Your task to perform on an android device: install app "Messages" Image 0: 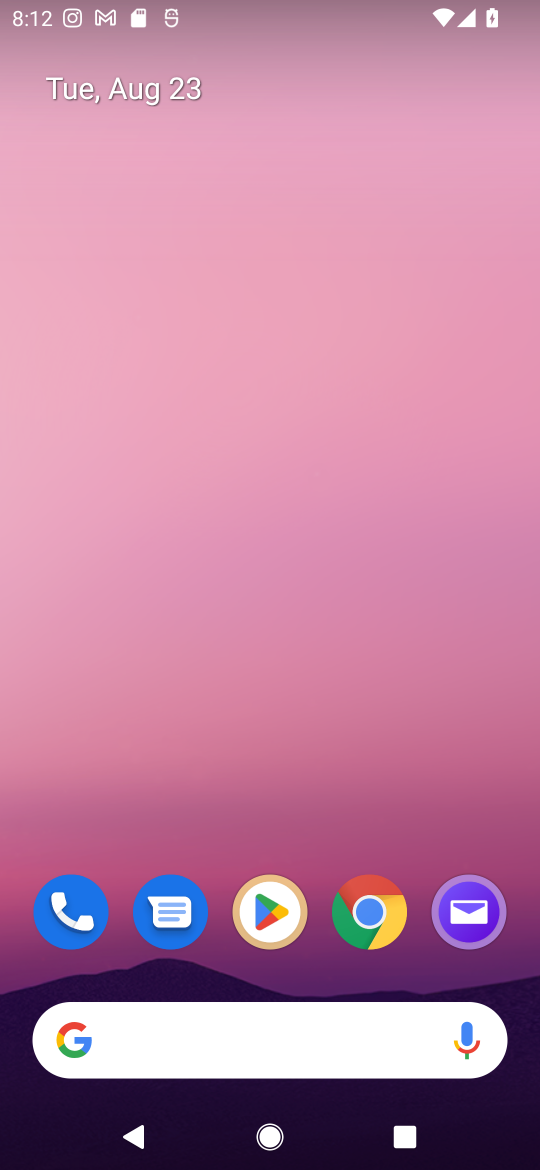
Step 0: click (265, 919)
Your task to perform on an android device: install app "Messages" Image 1: 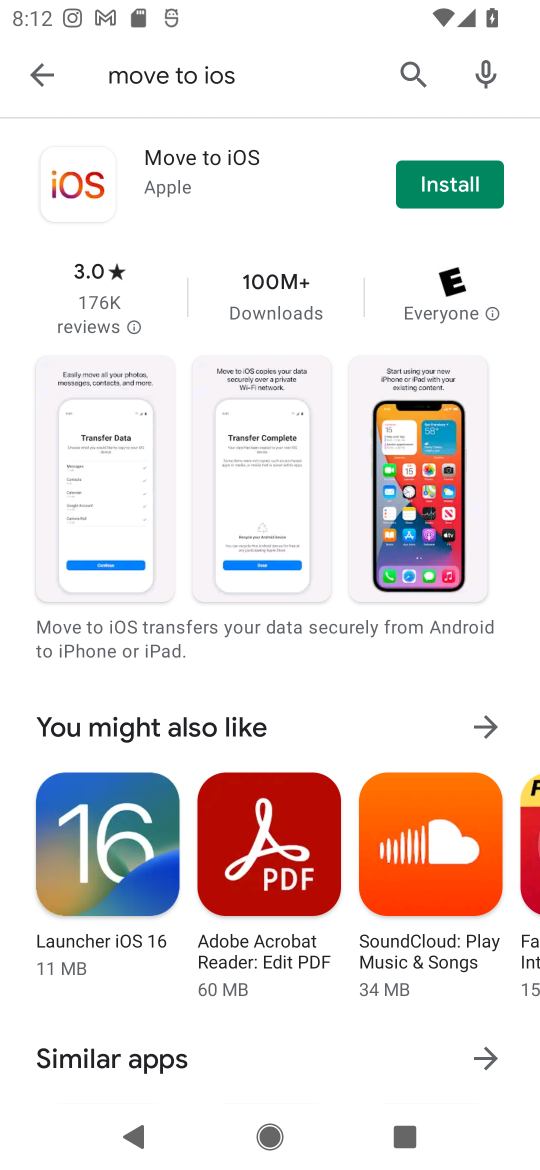
Step 1: click (412, 72)
Your task to perform on an android device: install app "Messages" Image 2: 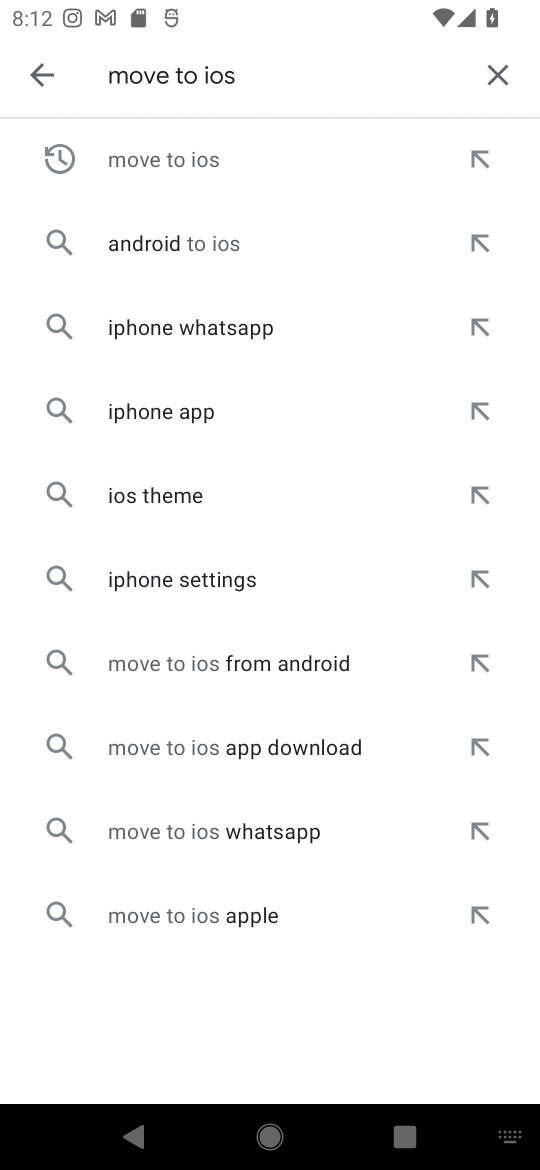
Step 2: click (493, 74)
Your task to perform on an android device: install app "Messages" Image 3: 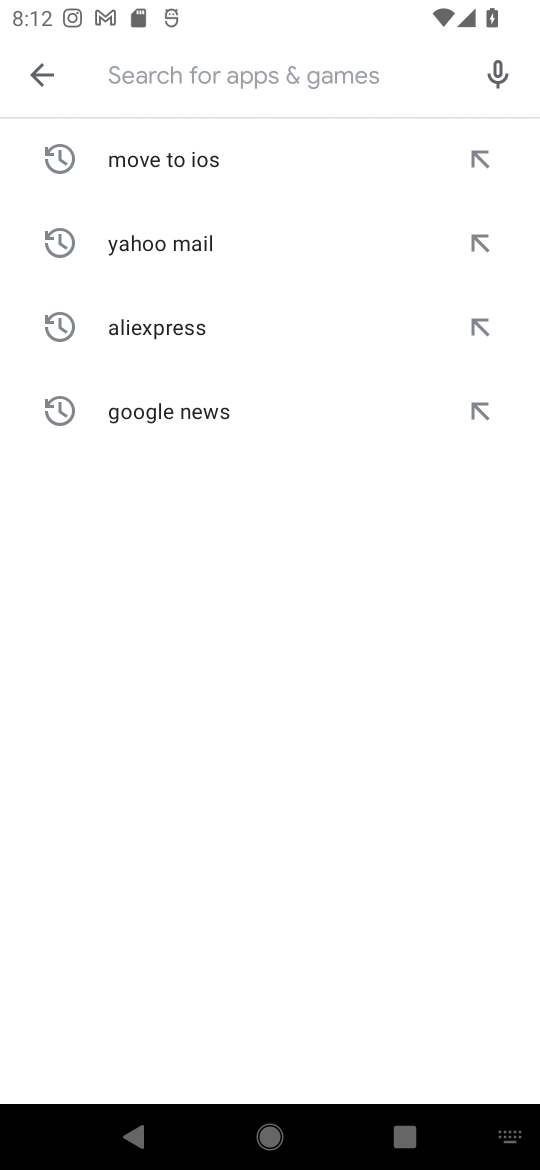
Step 3: type "Messages"
Your task to perform on an android device: install app "Messages" Image 4: 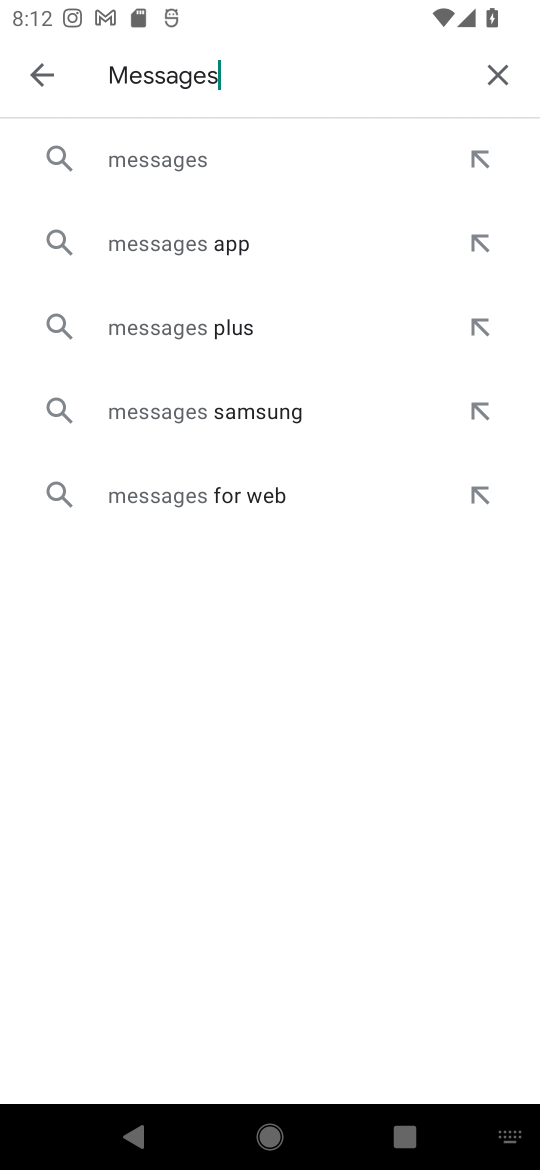
Step 4: click (145, 166)
Your task to perform on an android device: install app "Messages" Image 5: 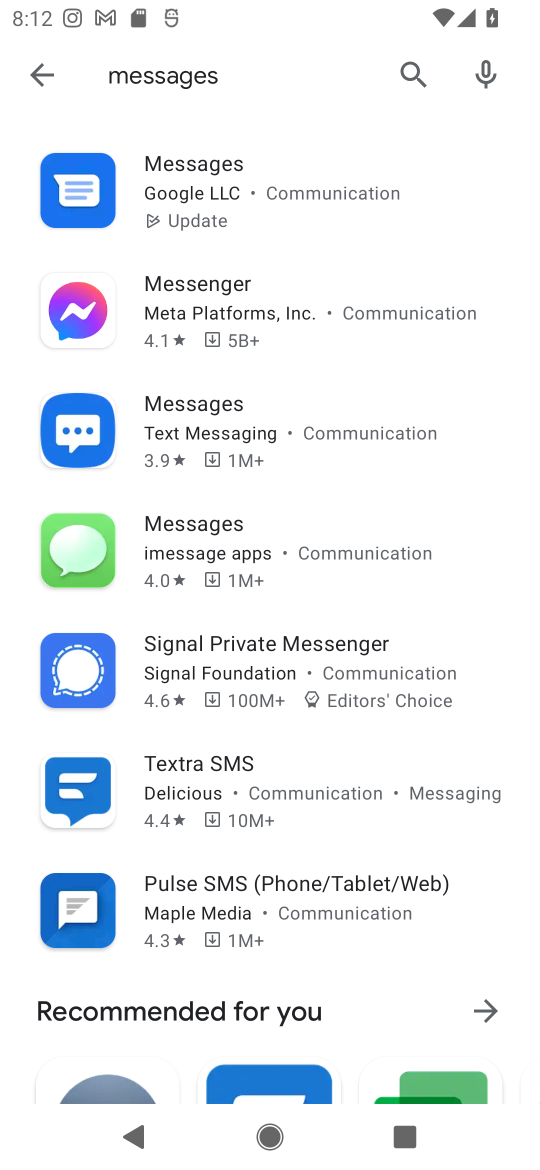
Step 5: click (197, 171)
Your task to perform on an android device: install app "Messages" Image 6: 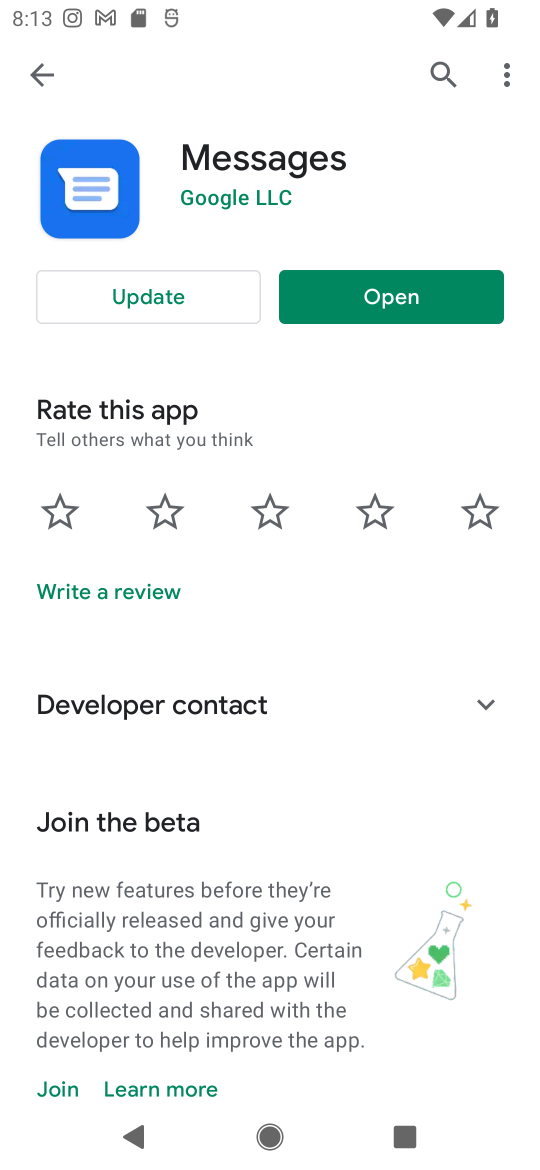
Step 6: task complete